Your task to perform on an android device: turn on the 12-hour format for clock Image 0: 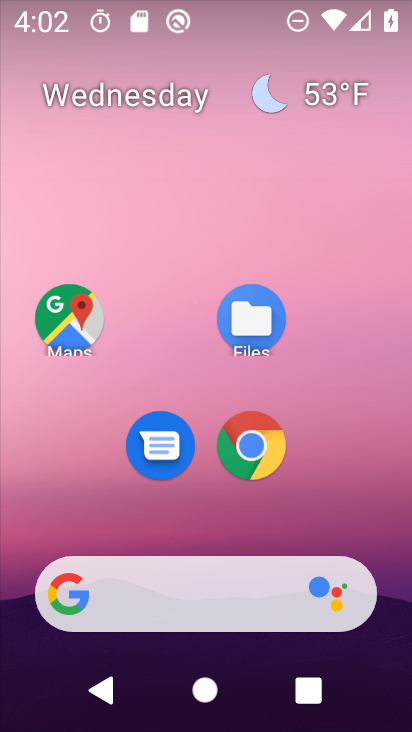
Step 0: drag from (344, 501) to (409, 54)
Your task to perform on an android device: turn on the 12-hour format for clock Image 1: 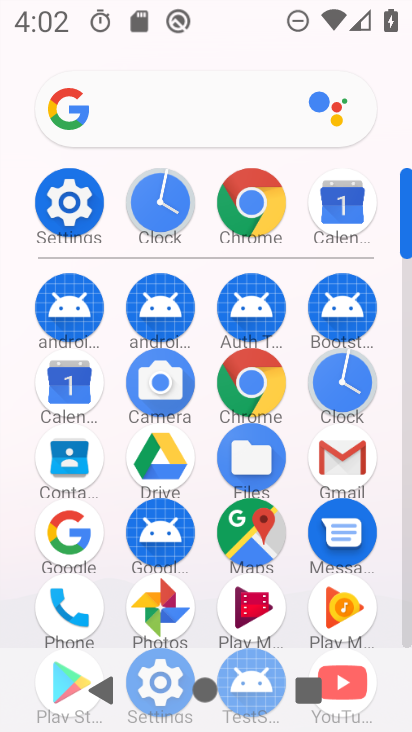
Step 1: click (158, 209)
Your task to perform on an android device: turn on the 12-hour format for clock Image 2: 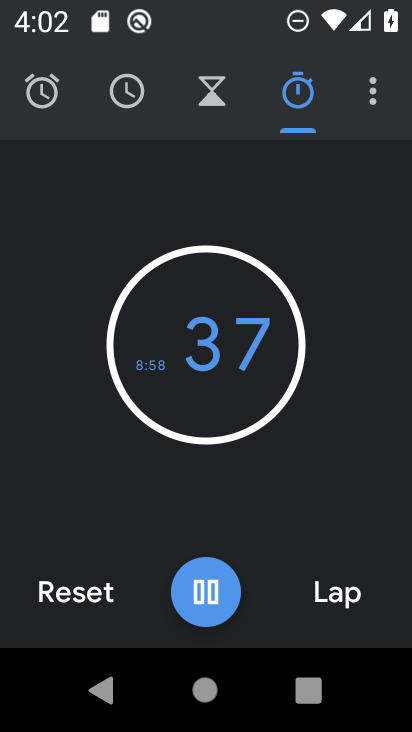
Step 2: click (370, 82)
Your task to perform on an android device: turn on the 12-hour format for clock Image 3: 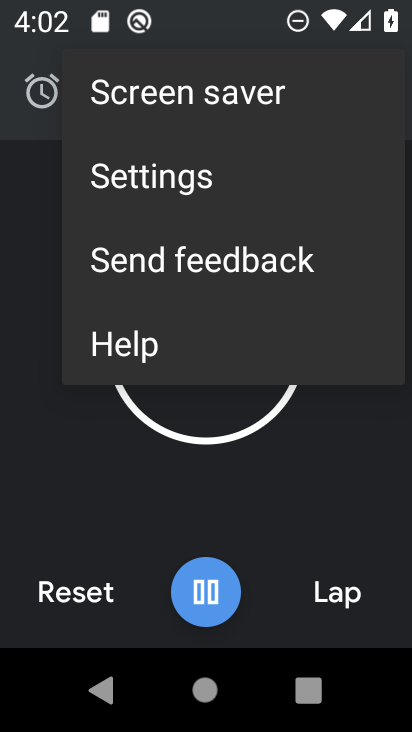
Step 3: click (246, 156)
Your task to perform on an android device: turn on the 12-hour format for clock Image 4: 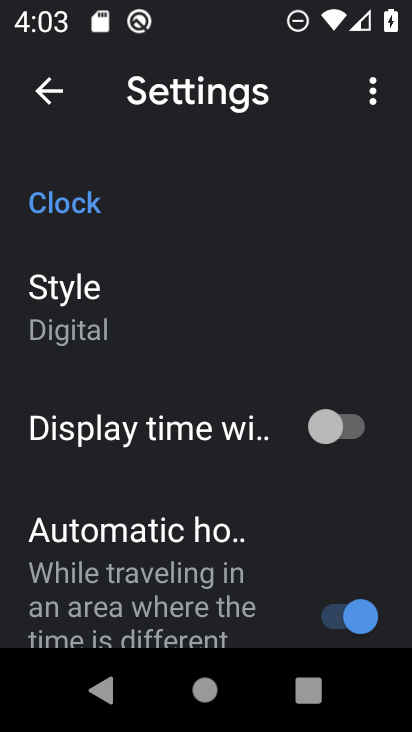
Step 4: drag from (109, 452) to (195, 245)
Your task to perform on an android device: turn on the 12-hour format for clock Image 5: 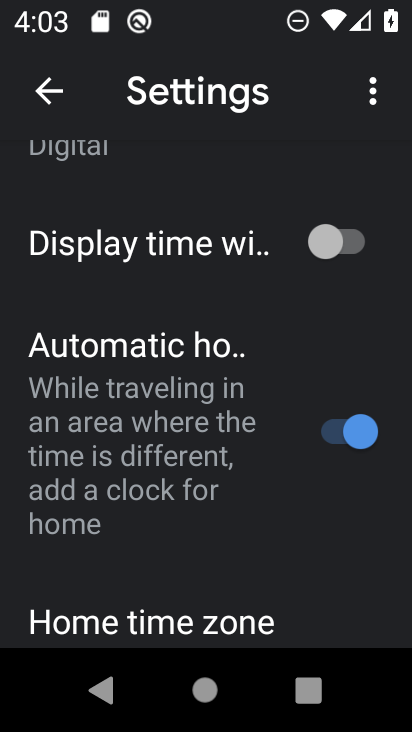
Step 5: drag from (102, 420) to (199, 131)
Your task to perform on an android device: turn on the 12-hour format for clock Image 6: 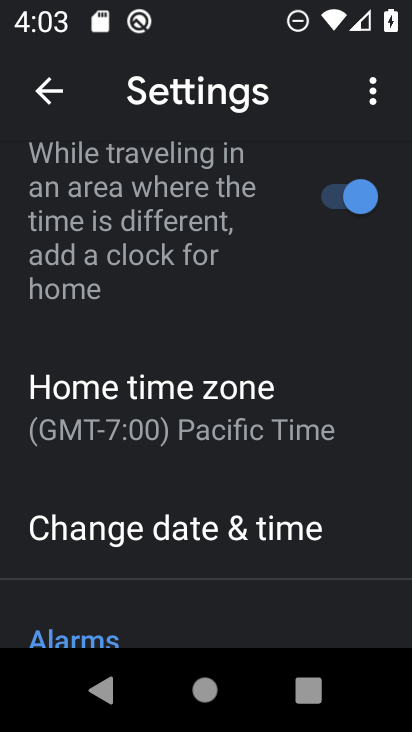
Step 6: click (81, 506)
Your task to perform on an android device: turn on the 12-hour format for clock Image 7: 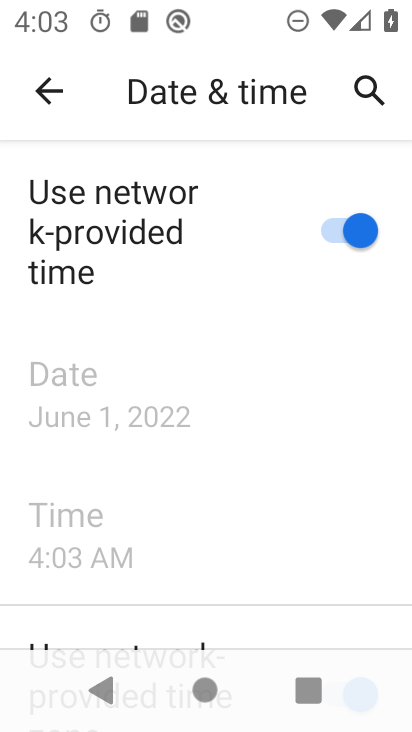
Step 7: task complete